Your task to perform on an android device: turn on improve location accuracy Image 0: 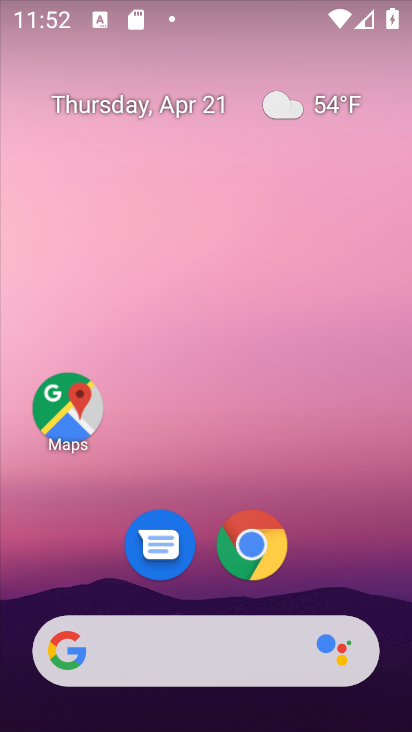
Step 0: drag from (351, 585) to (301, 129)
Your task to perform on an android device: turn on improve location accuracy Image 1: 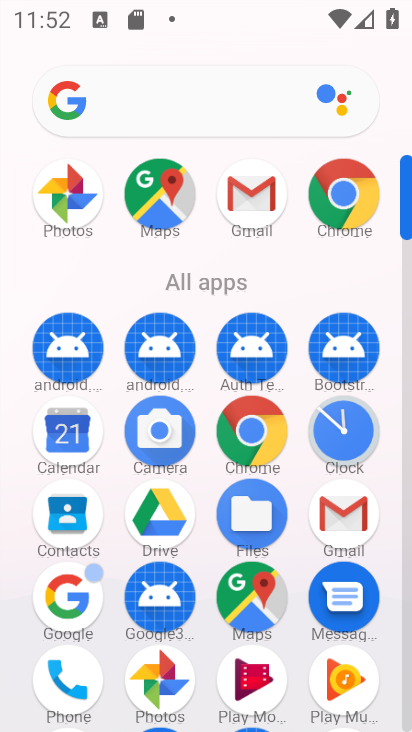
Step 1: drag from (298, 561) to (294, 258)
Your task to perform on an android device: turn on improve location accuracy Image 2: 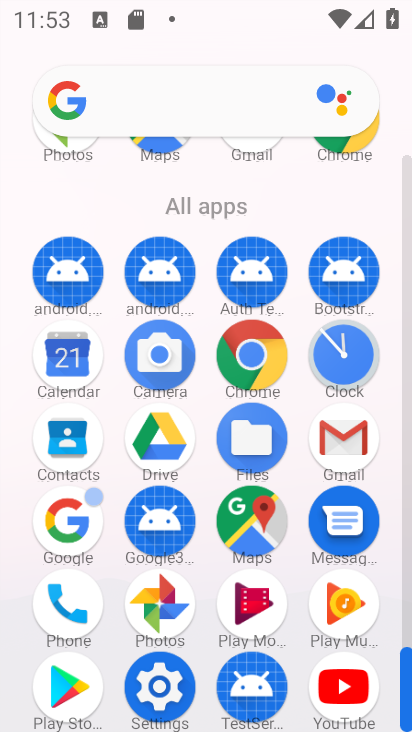
Step 2: click (167, 678)
Your task to perform on an android device: turn on improve location accuracy Image 3: 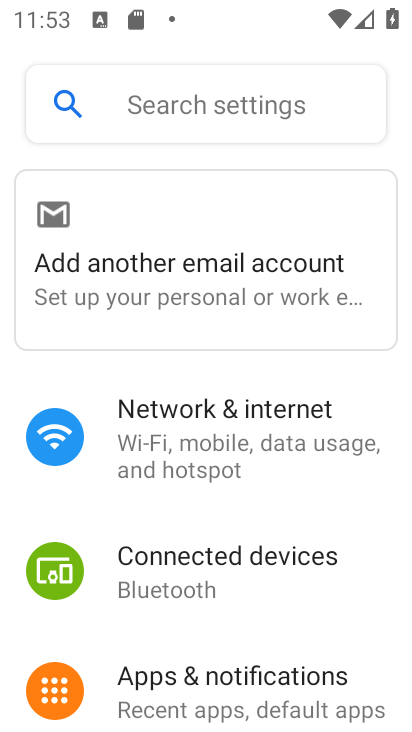
Step 3: drag from (242, 608) to (271, 214)
Your task to perform on an android device: turn on improve location accuracy Image 4: 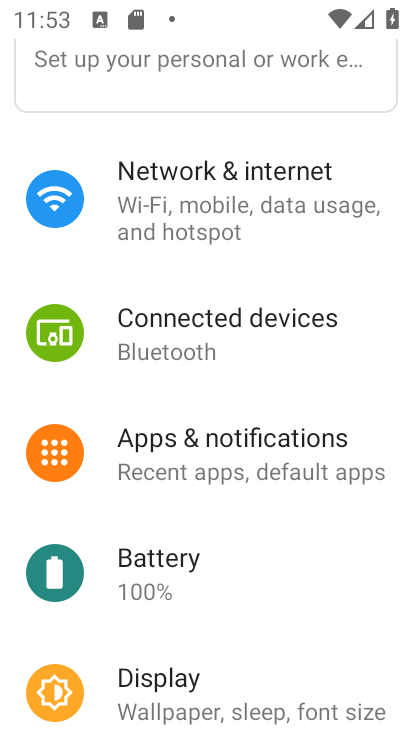
Step 4: drag from (230, 622) to (259, 214)
Your task to perform on an android device: turn on improve location accuracy Image 5: 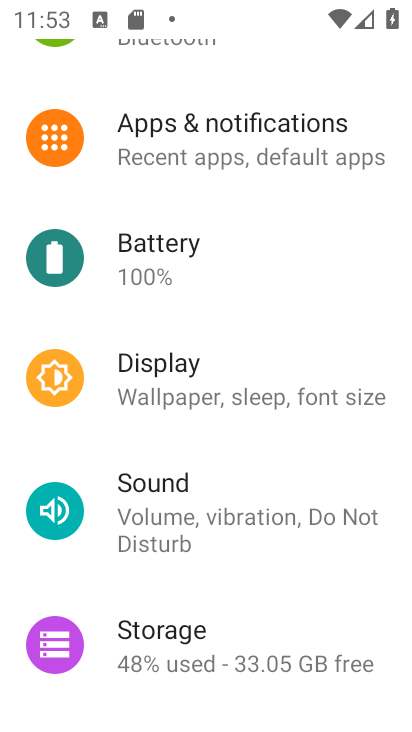
Step 5: drag from (259, 633) to (284, 229)
Your task to perform on an android device: turn on improve location accuracy Image 6: 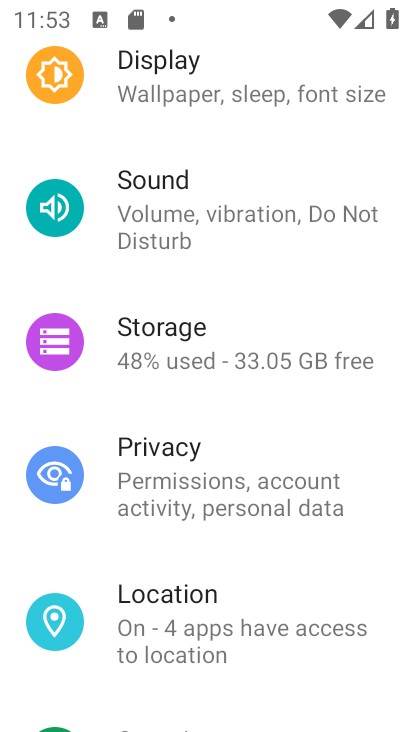
Step 6: click (214, 631)
Your task to perform on an android device: turn on improve location accuracy Image 7: 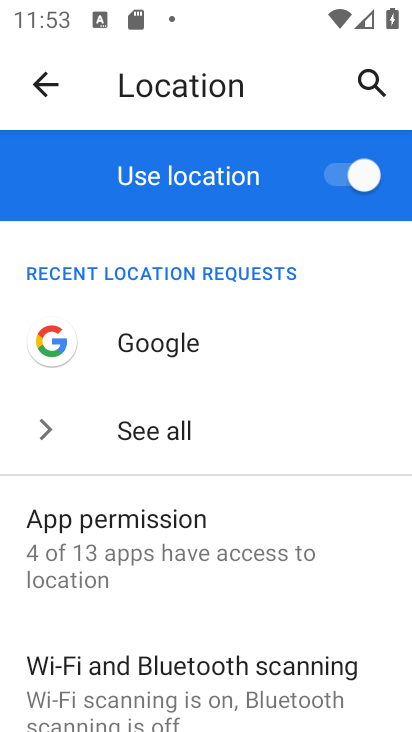
Step 7: drag from (203, 593) to (249, 249)
Your task to perform on an android device: turn on improve location accuracy Image 8: 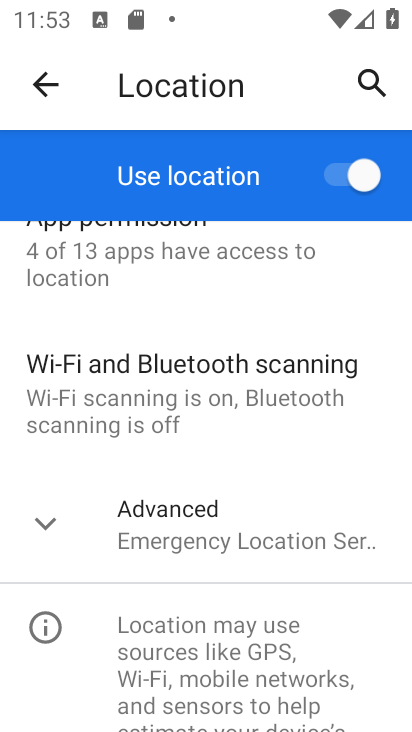
Step 8: click (207, 525)
Your task to perform on an android device: turn on improve location accuracy Image 9: 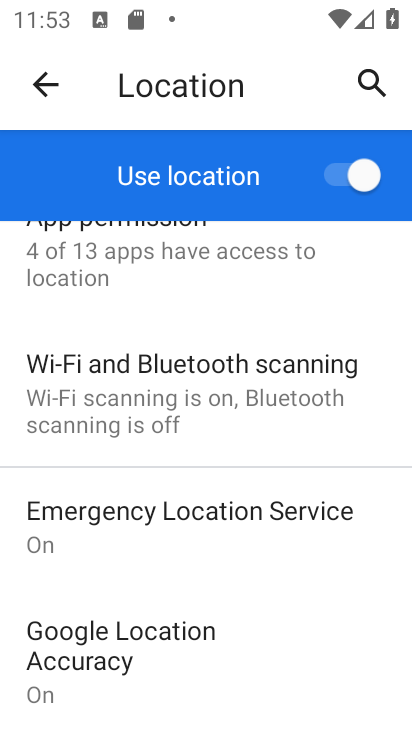
Step 9: drag from (211, 673) to (267, 365)
Your task to perform on an android device: turn on improve location accuracy Image 10: 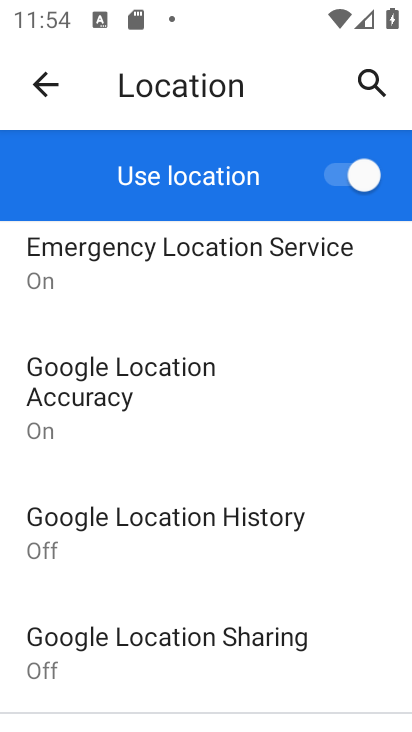
Step 10: click (232, 402)
Your task to perform on an android device: turn on improve location accuracy Image 11: 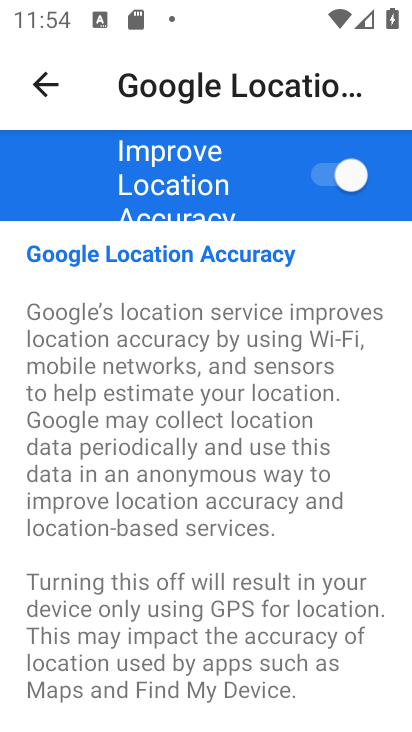
Step 11: task complete